Your task to perform on an android device: Clear all items from cart on target. Image 0: 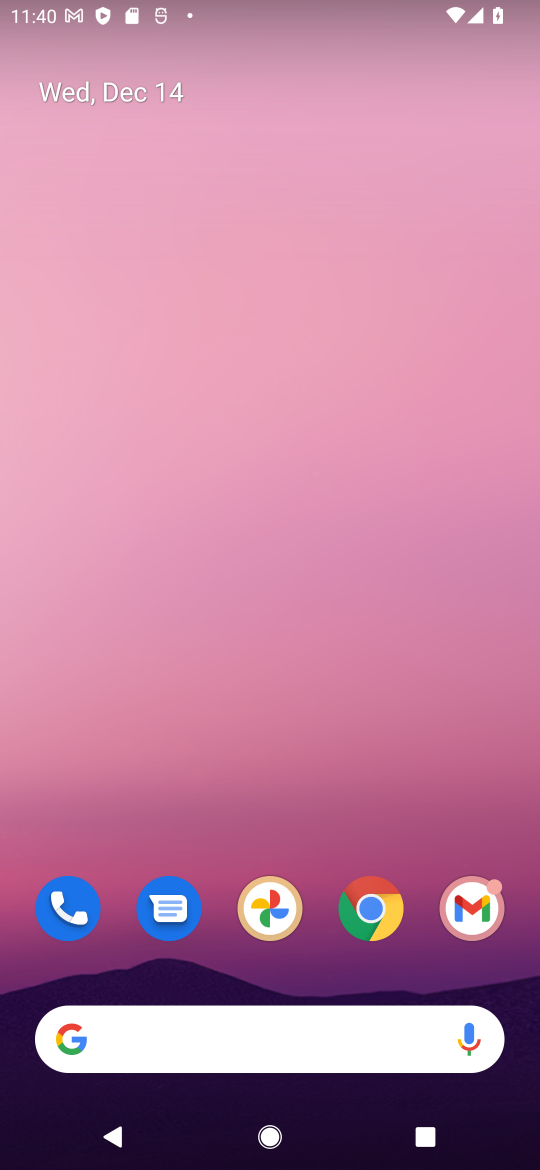
Step 0: click (372, 923)
Your task to perform on an android device: Clear all items from cart on target. Image 1: 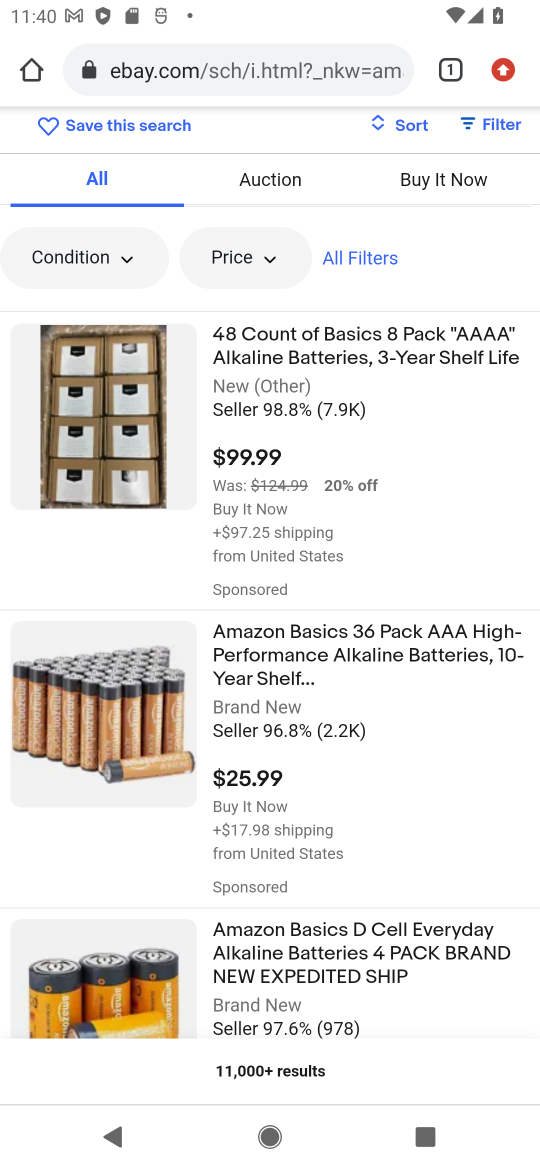
Step 1: click (162, 69)
Your task to perform on an android device: Clear all items from cart on target. Image 2: 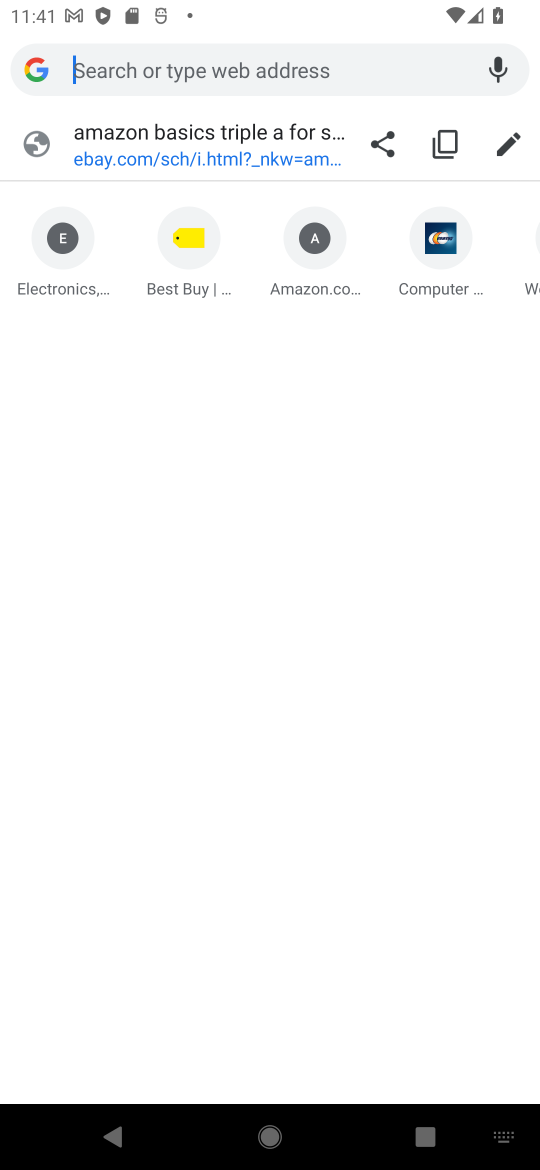
Step 2: type "target.com"
Your task to perform on an android device: Clear all items from cart on target. Image 3: 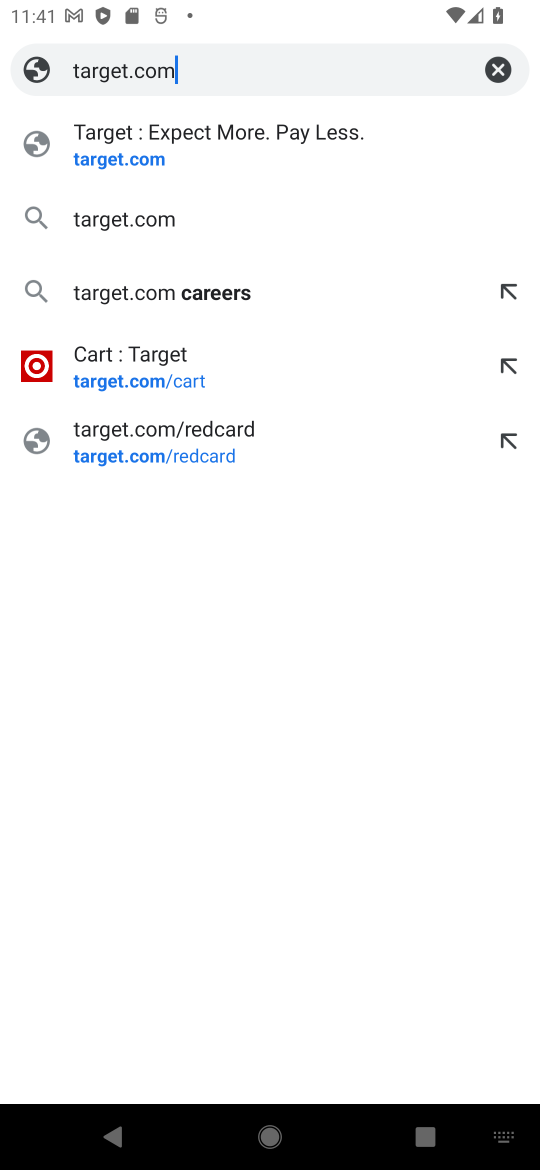
Step 3: click (118, 139)
Your task to perform on an android device: Clear all items from cart on target. Image 4: 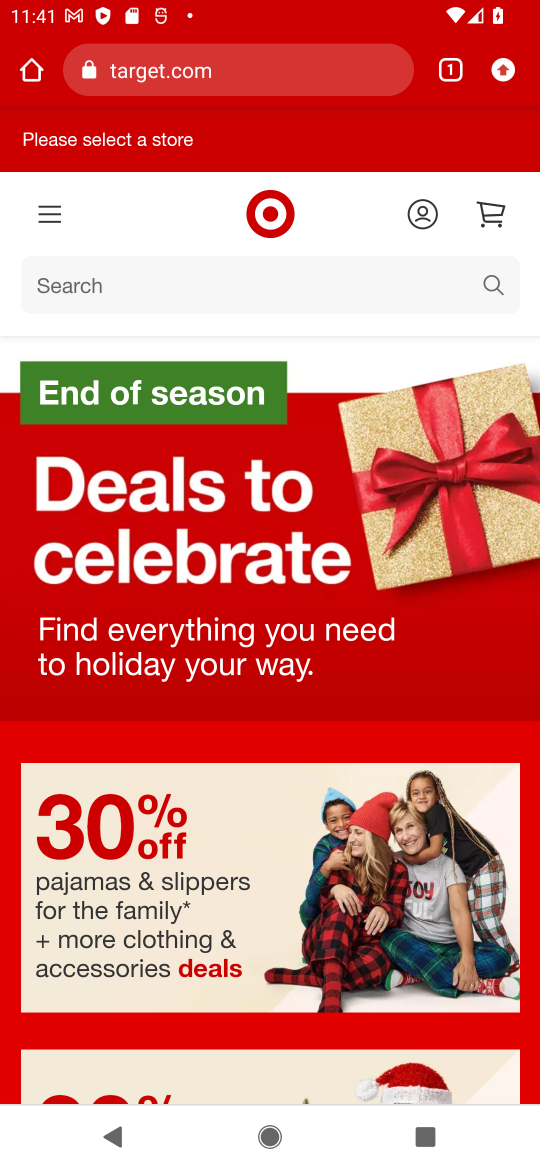
Step 4: click (493, 221)
Your task to perform on an android device: Clear all items from cart on target. Image 5: 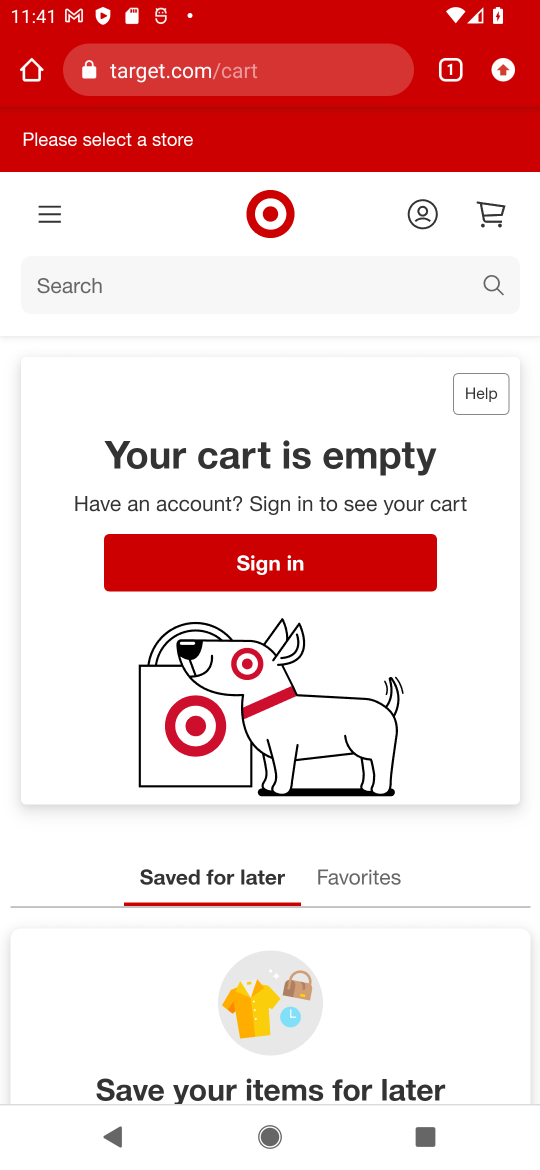
Step 5: task complete